Your task to perform on an android device: Go to accessibility settings Image 0: 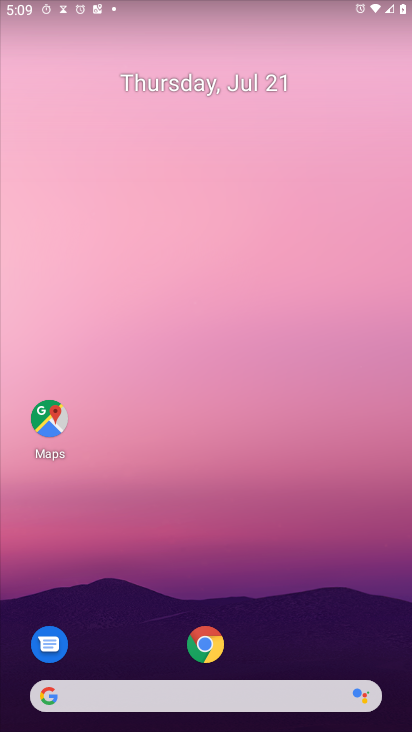
Step 0: press home button
Your task to perform on an android device: Go to accessibility settings Image 1: 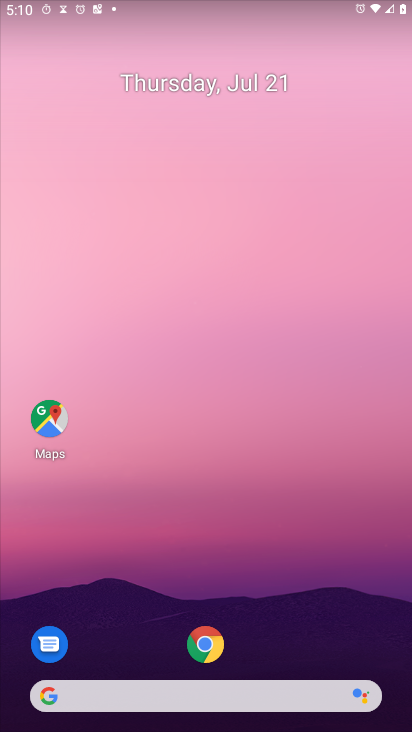
Step 1: drag from (259, 599) to (311, 74)
Your task to perform on an android device: Go to accessibility settings Image 2: 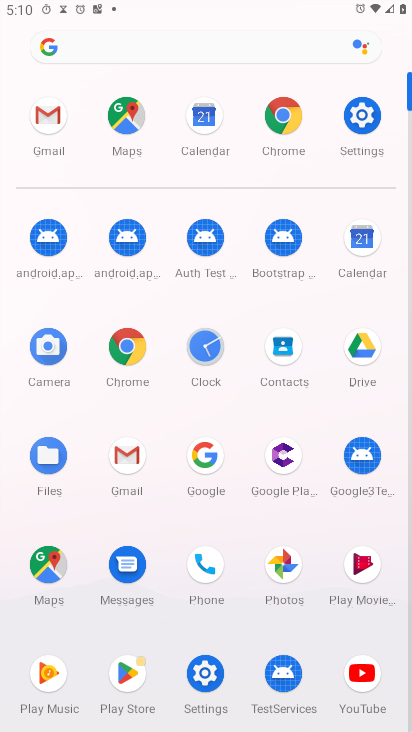
Step 2: click (368, 121)
Your task to perform on an android device: Go to accessibility settings Image 3: 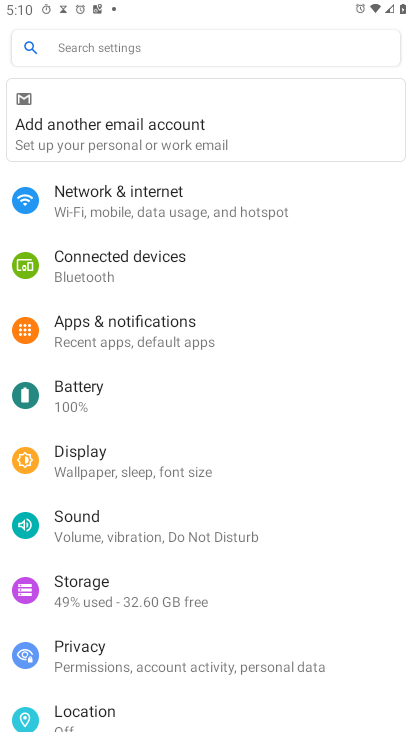
Step 3: drag from (140, 637) to (207, 267)
Your task to perform on an android device: Go to accessibility settings Image 4: 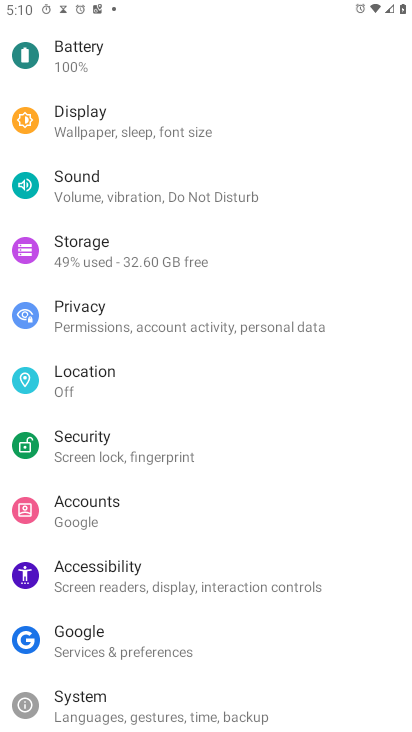
Step 4: click (118, 571)
Your task to perform on an android device: Go to accessibility settings Image 5: 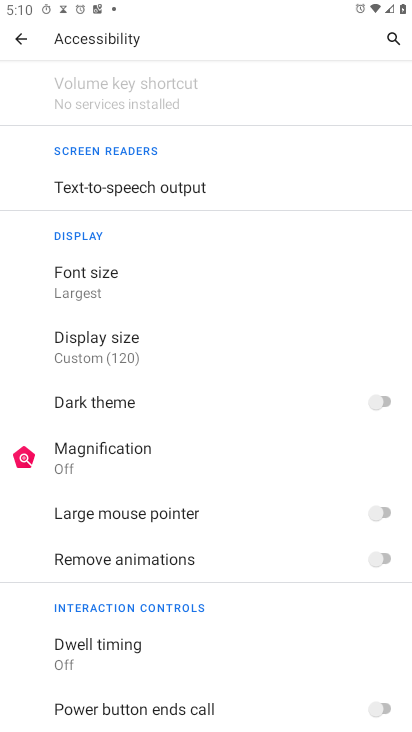
Step 5: task complete